Your task to perform on an android device: Open the stopwatch Image 0: 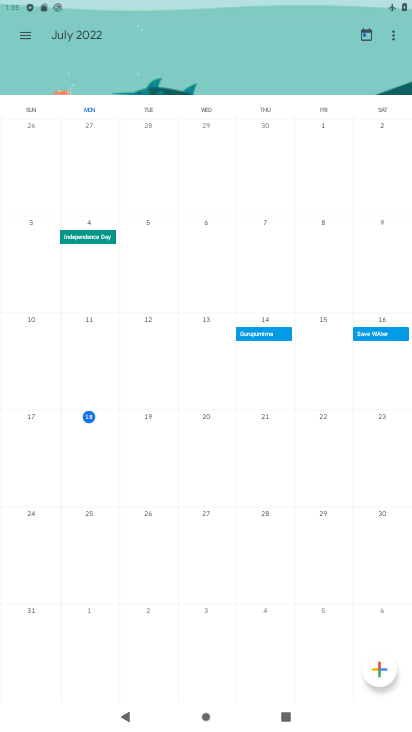
Step 0: press home button
Your task to perform on an android device: Open the stopwatch Image 1: 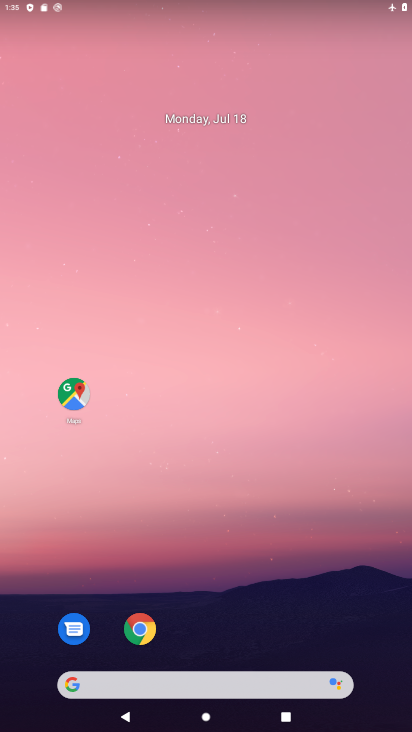
Step 1: drag from (191, 684) to (169, 101)
Your task to perform on an android device: Open the stopwatch Image 2: 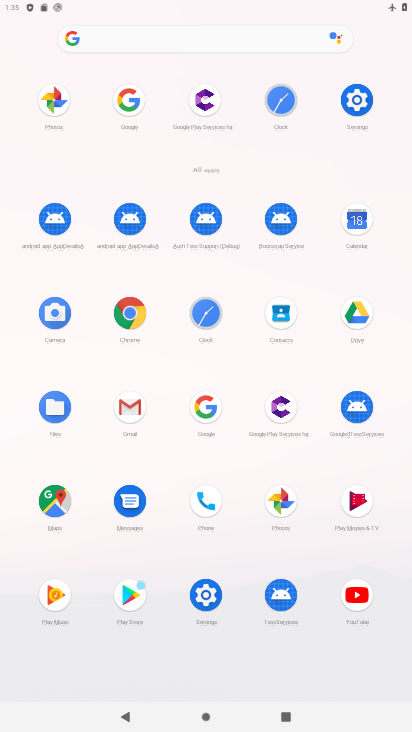
Step 2: click (282, 95)
Your task to perform on an android device: Open the stopwatch Image 3: 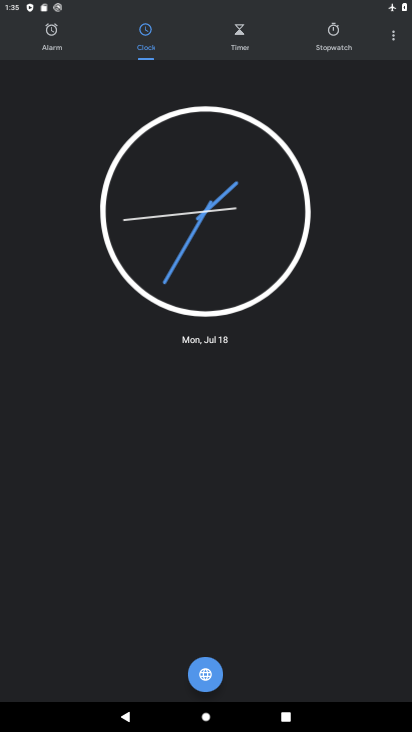
Step 3: click (329, 37)
Your task to perform on an android device: Open the stopwatch Image 4: 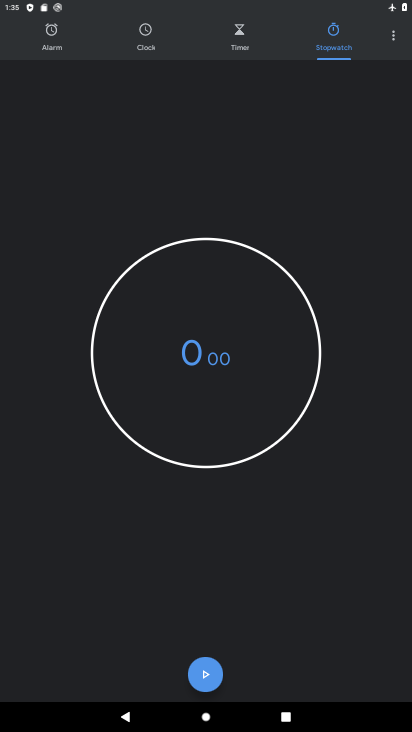
Step 4: task complete